Your task to perform on an android device: toggle sleep mode Image 0: 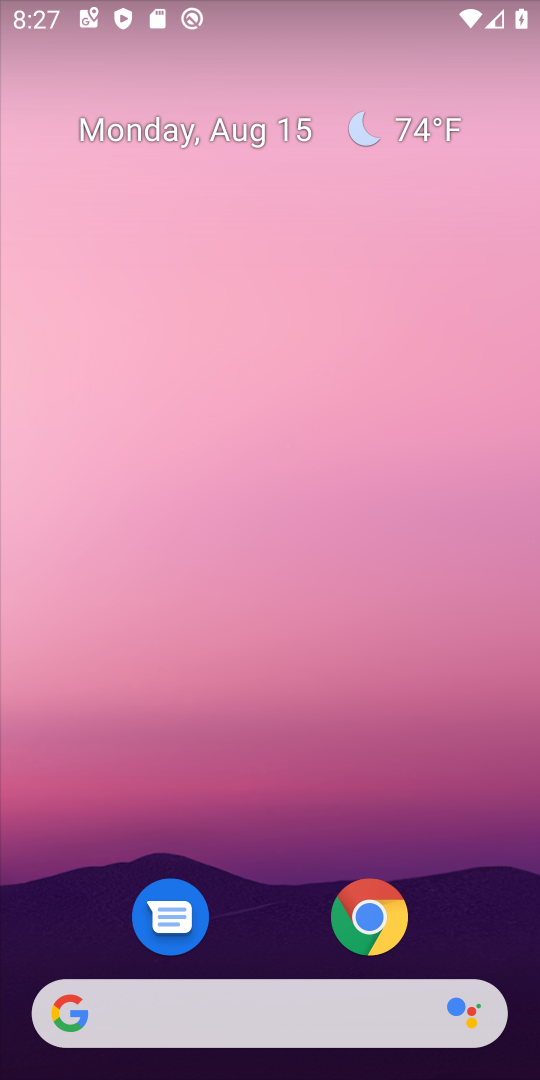
Step 0: drag from (285, 805) to (341, 0)
Your task to perform on an android device: toggle sleep mode Image 1: 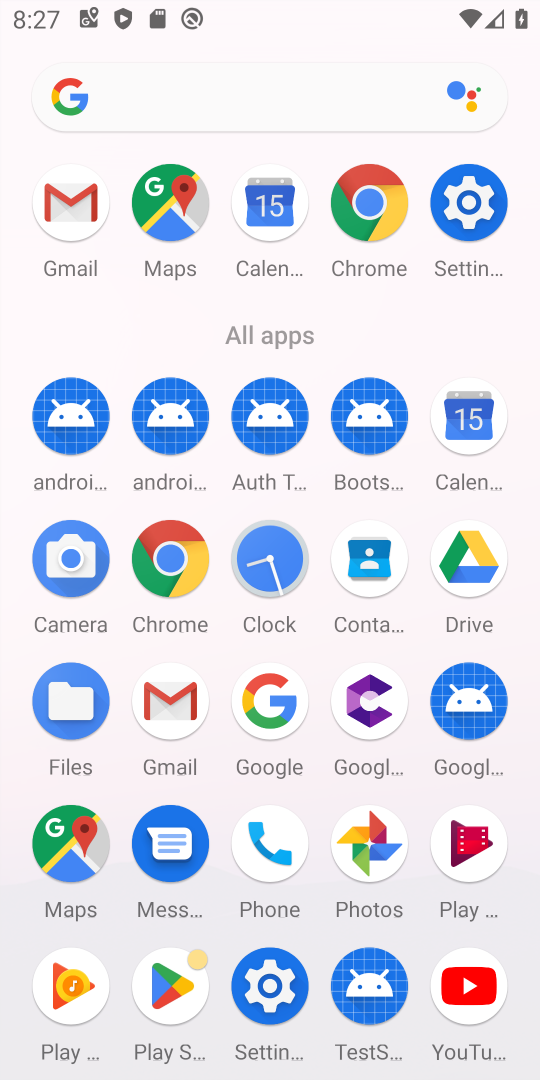
Step 1: click (476, 203)
Your task to perform on an android device: toggle sleep mode Image 2: 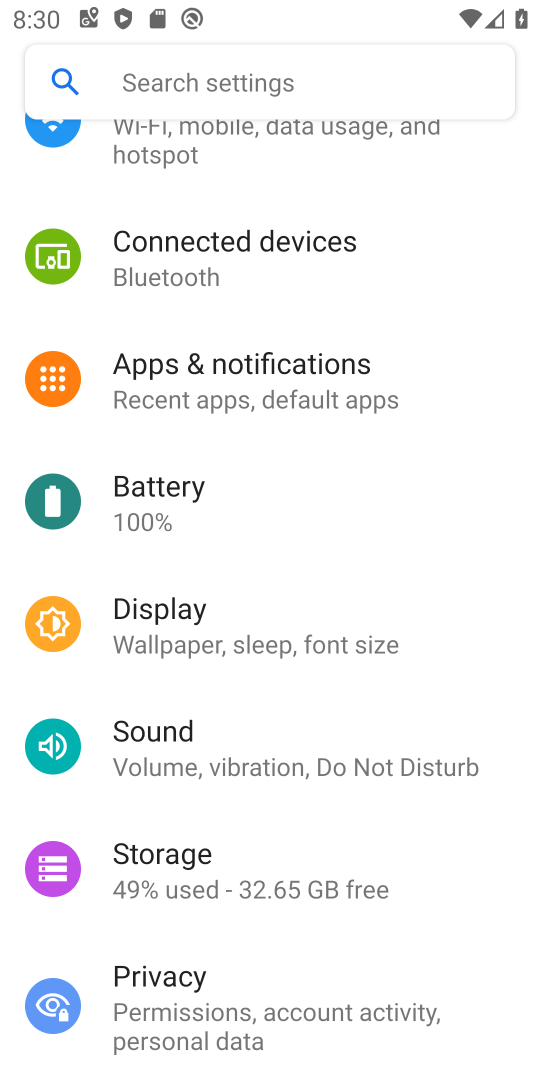
Step 2: task complete